Your task to perform on an android device: Go to Yahoo.com Image 0: 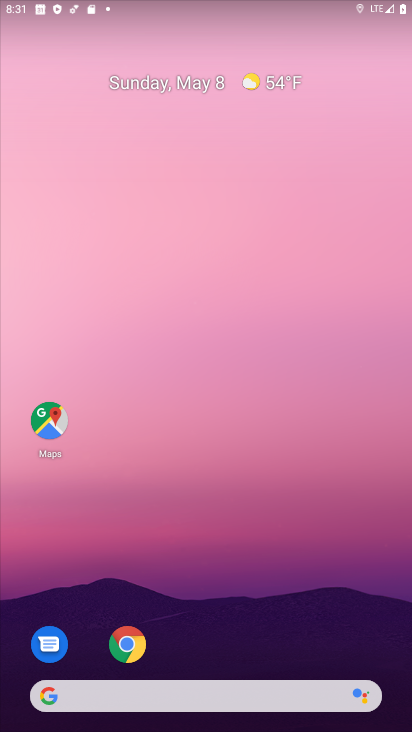
Step 0: drag from (204, 647) to (247, 164)
Your task to perform on an android device: Go to Yahoo.com Image 1: 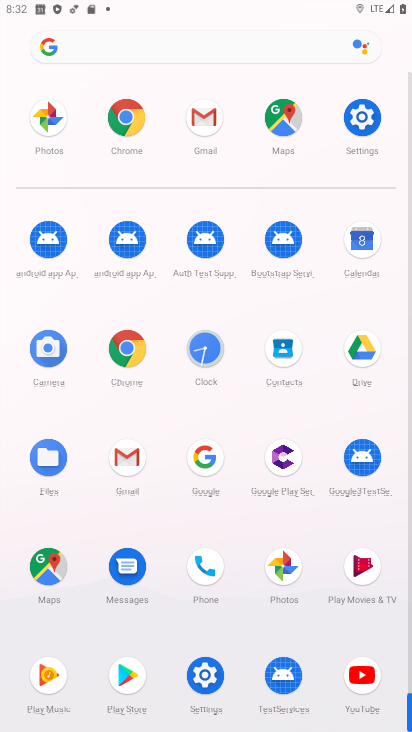
Step 1: click (130, 121)
Your task to perform on an android device: Go to Yahoo.com Image 2: 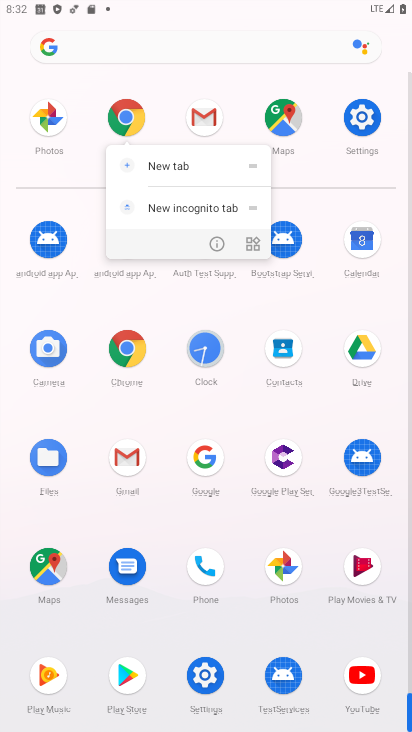
Step 2: click (215, 240)
Your task to perform on an android device: Go to Yahoo.com Image 3: 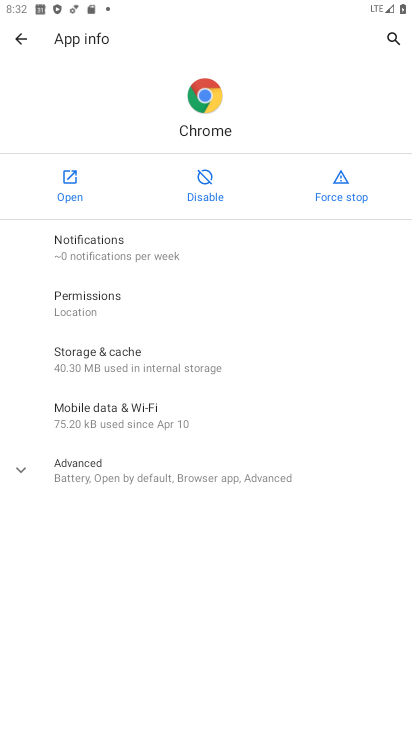
Step 3: click (68, 172)
Your task to perform on an android device: Go to Yahoo.com Image 4: 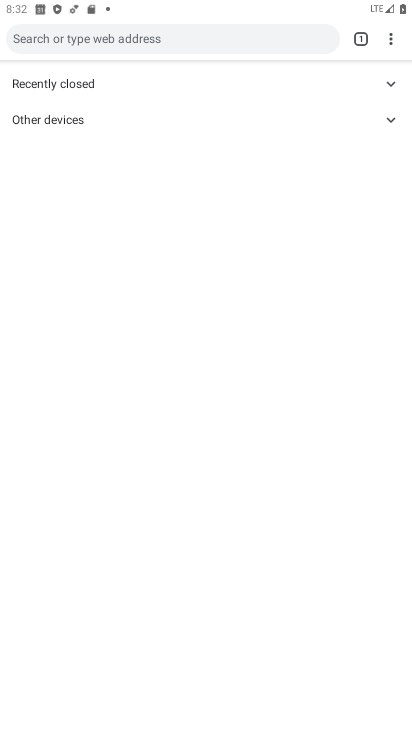
Step 4: click (134, 39)
Your task to perform on an android device: Go to Yahoo.com Image 5: 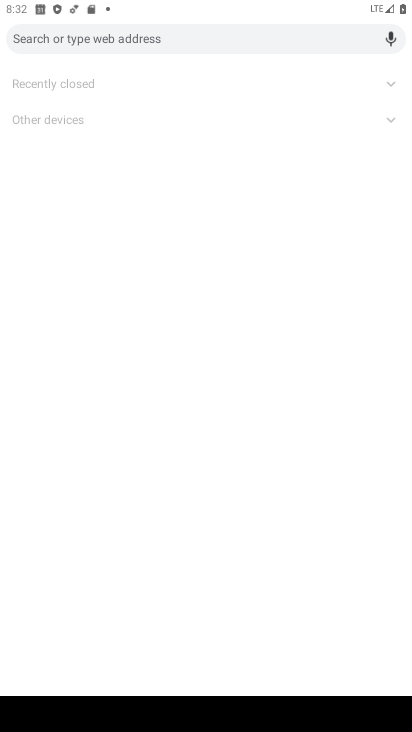
Step 5: type "yahoo"
Your task to perform on an android device: Go to Yahoo.com Image 6: 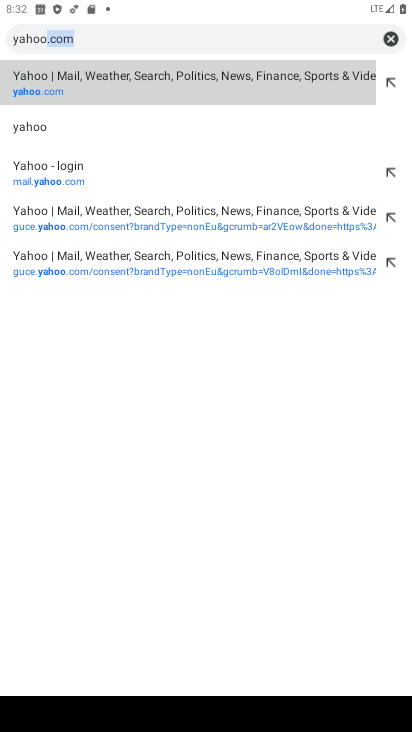
Step 6: click (95, 83)
Your task to perform on an android device: Go to Yahoo.com Image 7: 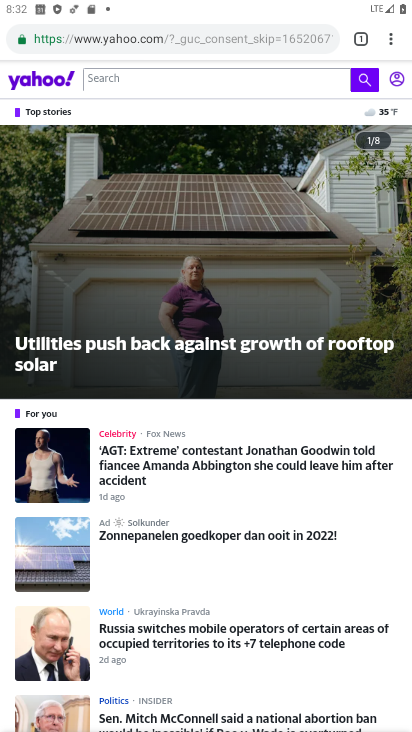
Step 7: task complete